Your task to perform on an android device: open a bookmark in the chrome app Image 0: 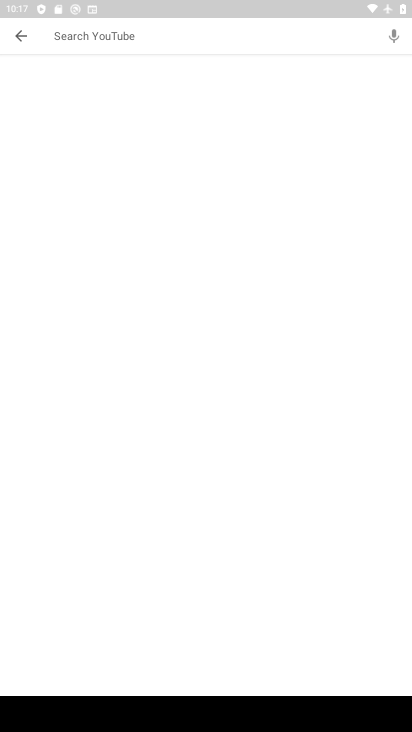
Step 0: press home button
Your task to perform on an android device: open a bookmark in the chrome app Image 1: 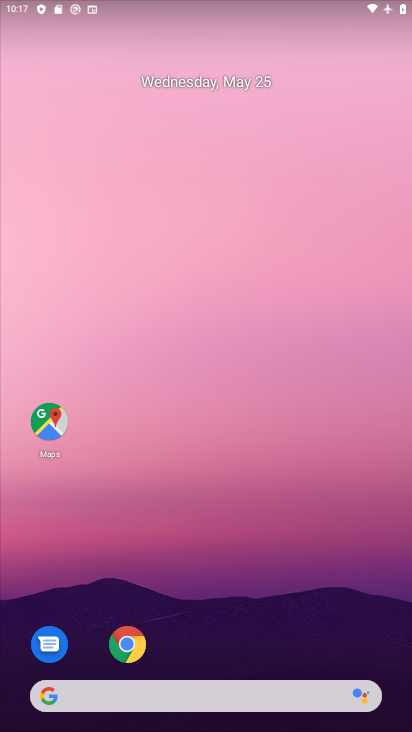
Step 1: click (129, 648)
Your task to perform on an android device: open a bookmark in the chrome app Image 2: 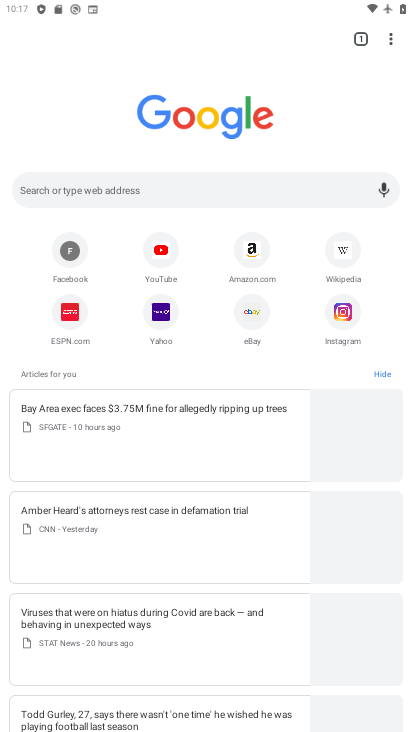
Step 2: click (381, 39)
Your task to perform on an android device: open a bookmark in the chrome app Image 3: 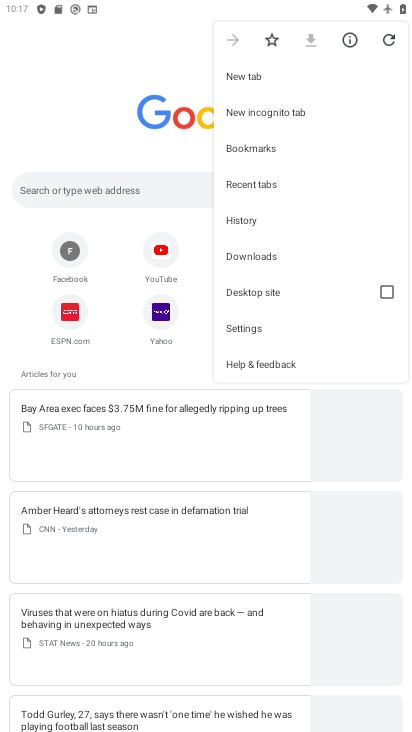
Step 3: click (256, 149)
Your task to perform on an android device: open a bookmark in the chrome app Image 4: 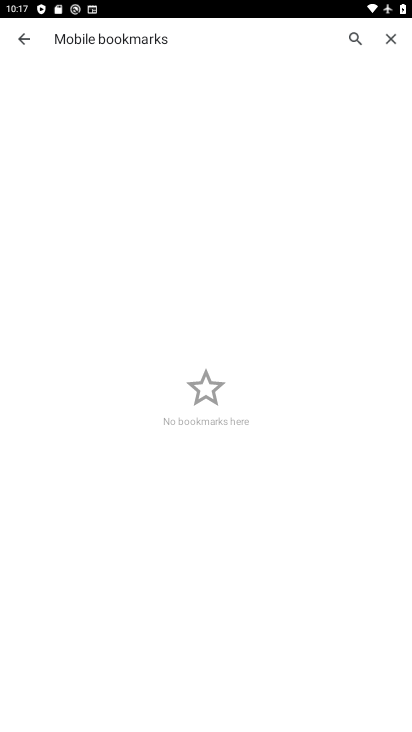
Step 4: task complete